Your task to perform on an android device: toggle notifications settings in the gmail app Image 0: 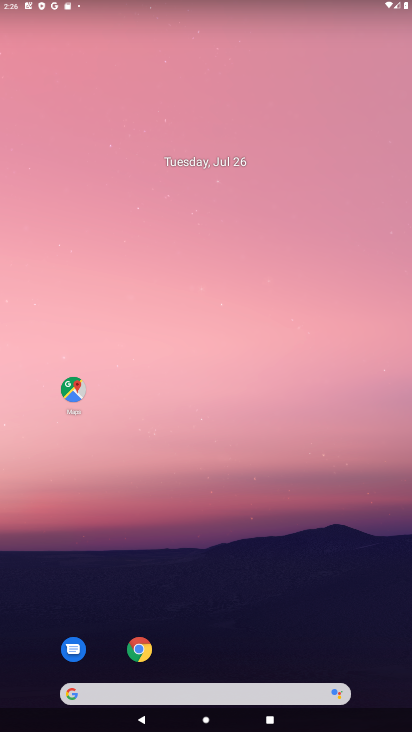
Step 0: click (242, 117)
Your task to perform on an android device: toggle notifications settings in the gmail app Image 1: 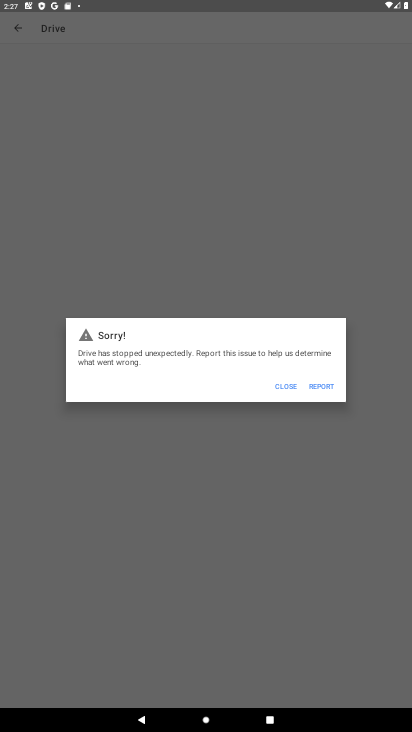
Step 1: press home button
Your task to perform on an android device: toggle notifications settings in the gmail app Image 2: 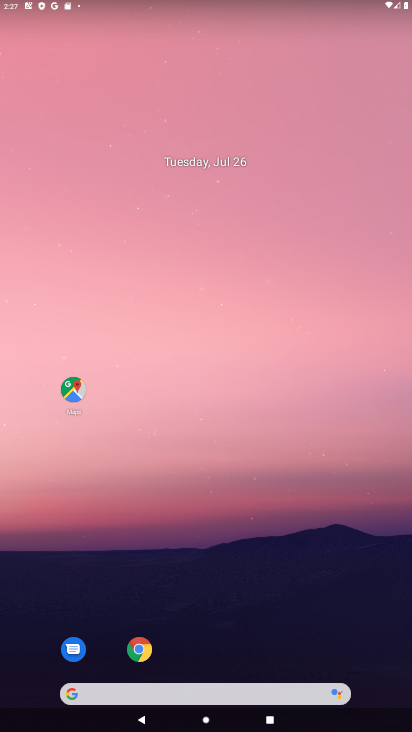
Step 2: drag from (192, 697) to (181, 230)
Your task to perform on an android device: toggle notifications settings in the gmail app Image 3: 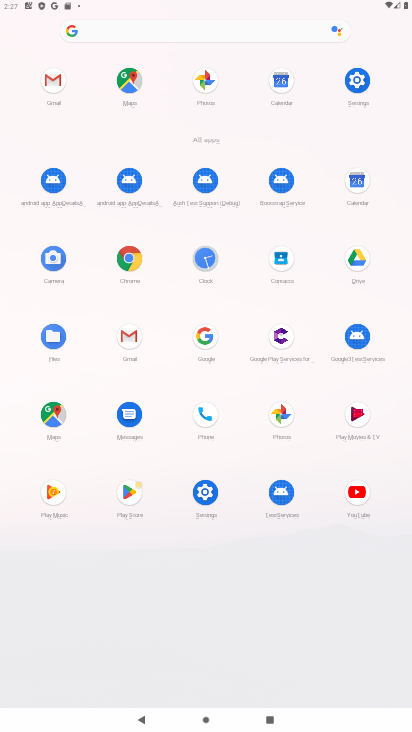
Step 3: click (133, 338)
Your task to perform on an android device: toggle notifications settings in the gmail app Image 4: 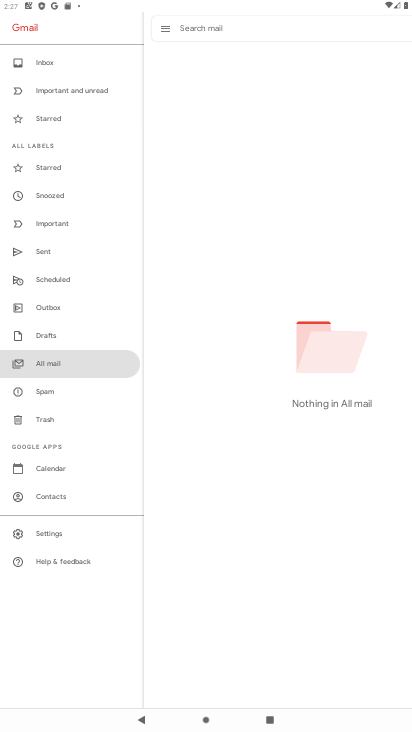
Step 4: click (31, 534)
Your task to perform on an android device: toggle notifications settings in the gmail app Image 5: 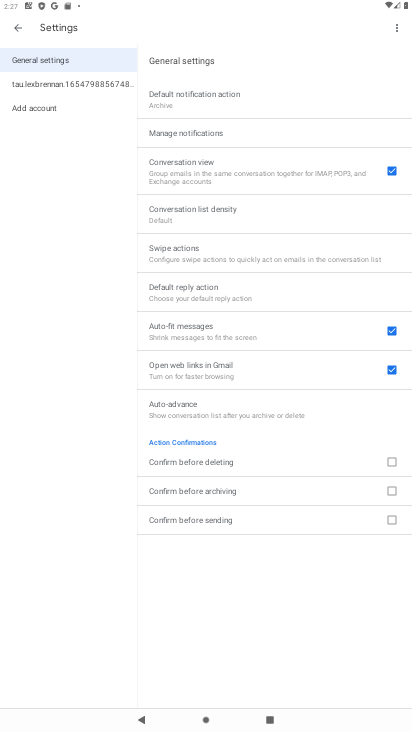
Step 5: click (67, 87)
Your task to perform on an android device: toggle notifications settings in the gmail app Image 6: 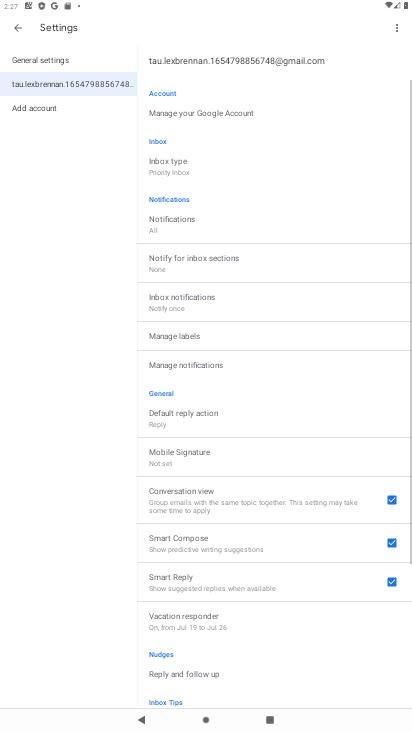
Step 6: click (224, 369)
Your task to perform on an android device: toggle notifications settings in the gmail app Image 7: 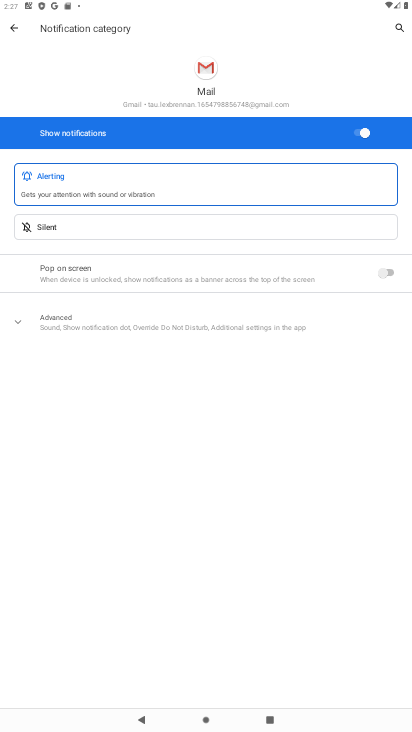
Step 7: click (286, 234)
Your task to perform on an android device: toggle notifications settings in the gmail app Image 8: 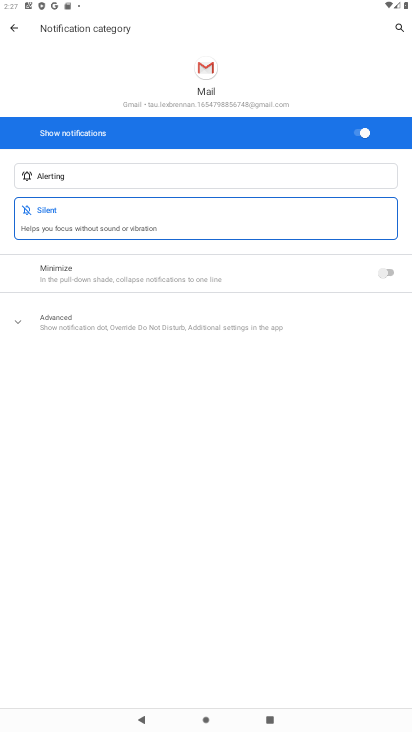
Step 8: task complete